Your task to perform on an android device: set default search engine in the chrome app Image 0: 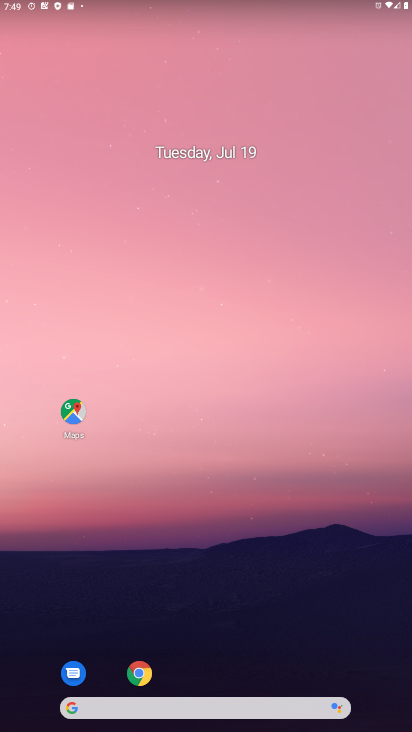
Step 0: drag from (224, 618) to (410, 222)
Your task to perform on an android device: set default search engine in the chrome app Image 1: 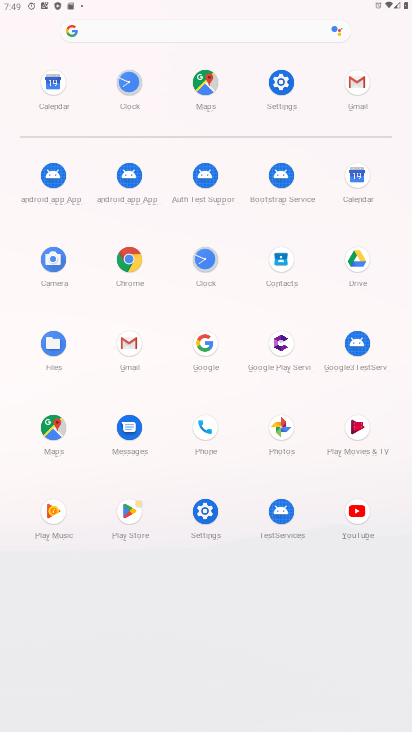
Step 1: click (123, 256)
Your task to perform on an android device: set default search engine in the chrome app Image 2: 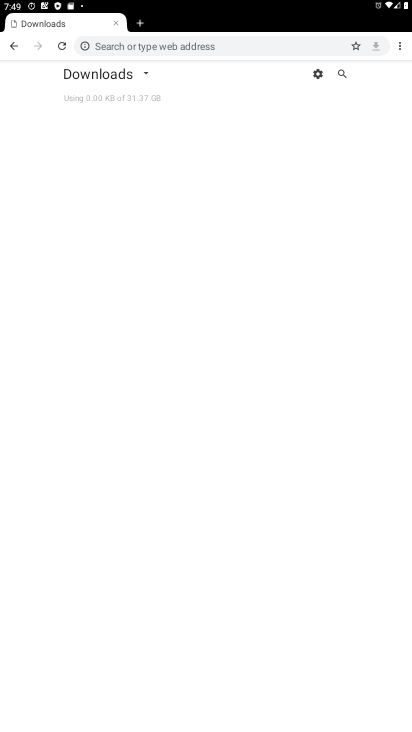
Step 2: click (6, 44)
Your task to perform on an android device: set default search engine in the chrome app Image 3: 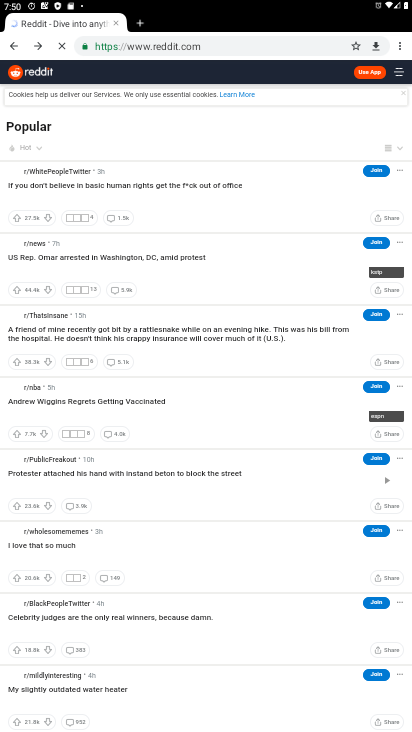
Step 3: drag from (404, 48) to (313, 311)
Your task to perform on an android device: set default search engine in the chrome app Image 4: 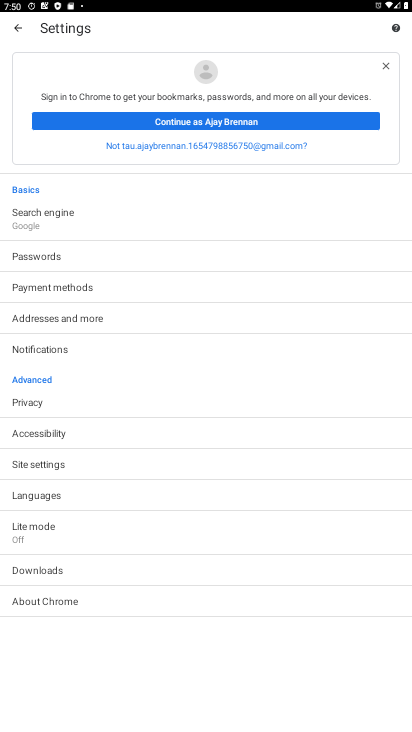
Step 4: click (14, 213)
Your task to perform on an android device: set default search engine in the chrome app Image 5: 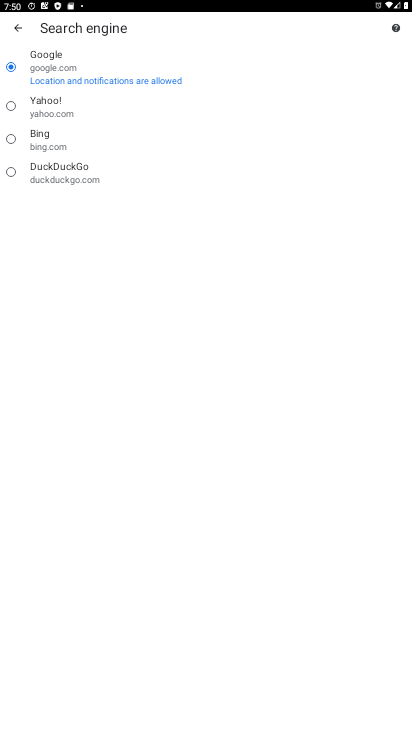
Step 5: task complete